Your task to perform on an android device: Open calendar and show me the fourth week of next month Image 0: 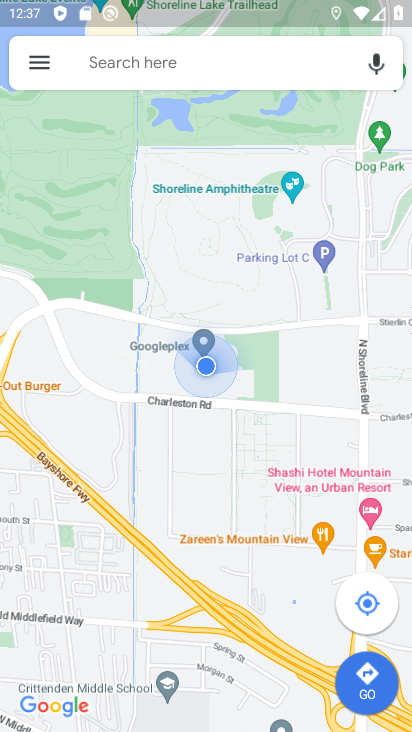
Step 0: press home button
Your task to perform on an android device: Open calendar and show me the fourth week of next month Image 1: 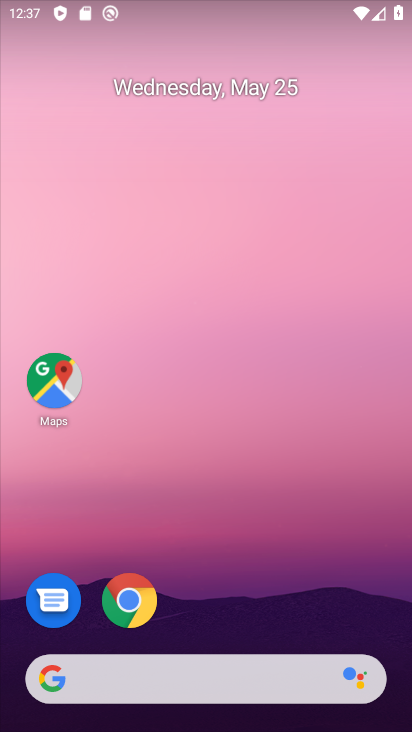
Step 1: drag from (247, 621) to (251, 141)
Your task to perform on an android device: Open calendar and show me the fourth week of next month Image 2: 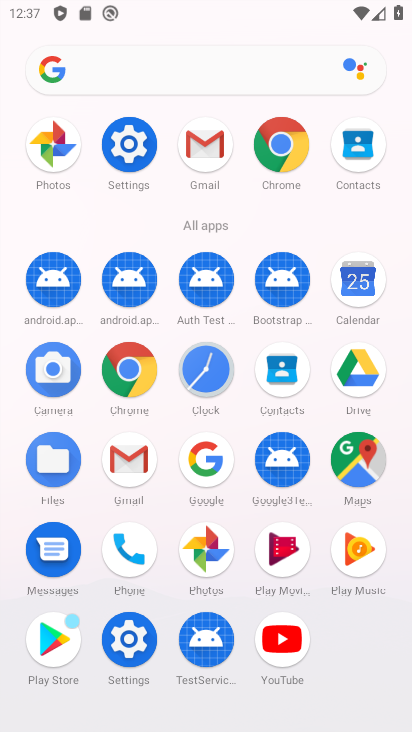
Step 2: click (351, 282)
Your task to perform on an android device: Open calendar and show me the fourth week of next month Image 3: 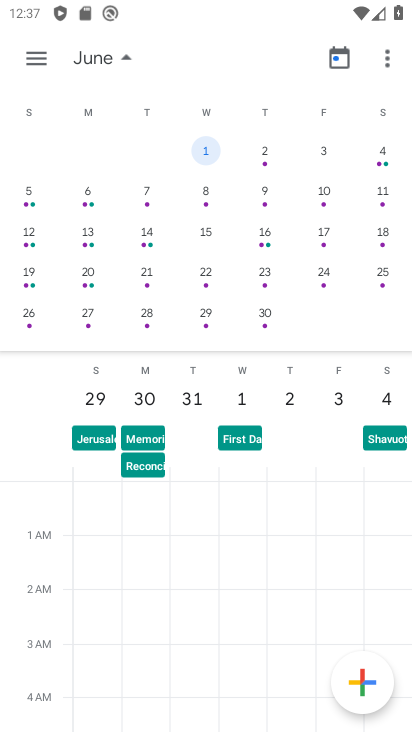
Step 3: click (209, 275)
Your task to perform on an android device: Open calendar and show me the fourth week of next month Image 4: 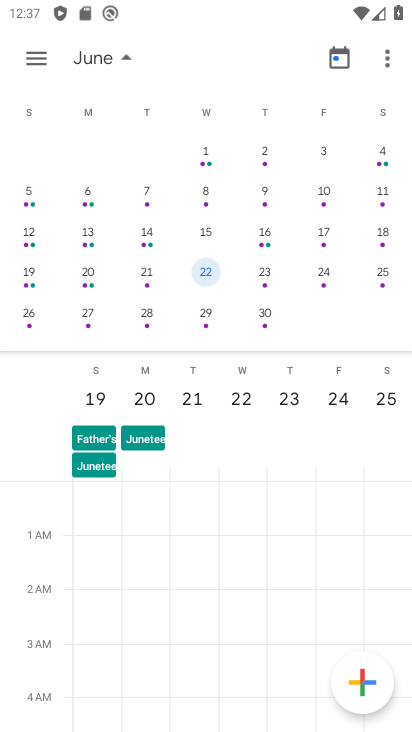
Step 4: task complete